Your task to perform on an android device: Search for Mexican restaurants on Maps Image 0: 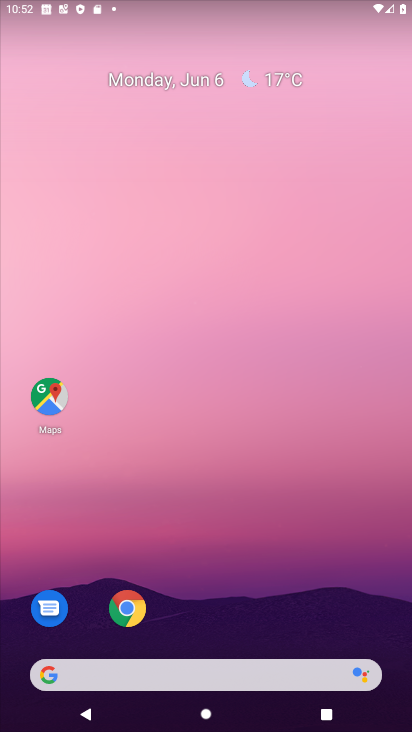
Step 0: click (33, 401)
Your task to perform on an android device: Search for Mexican restaurants on Maps Image 1: 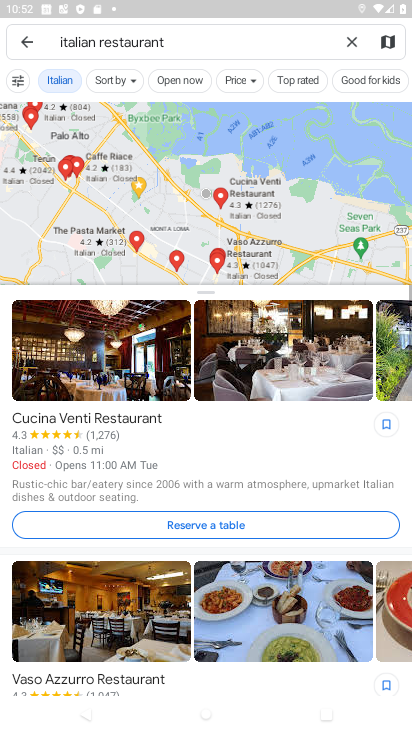
Step 1: click (346, 42)
Your task to perform on an android device: Search for Mexican restaurants on Maps Image 2: 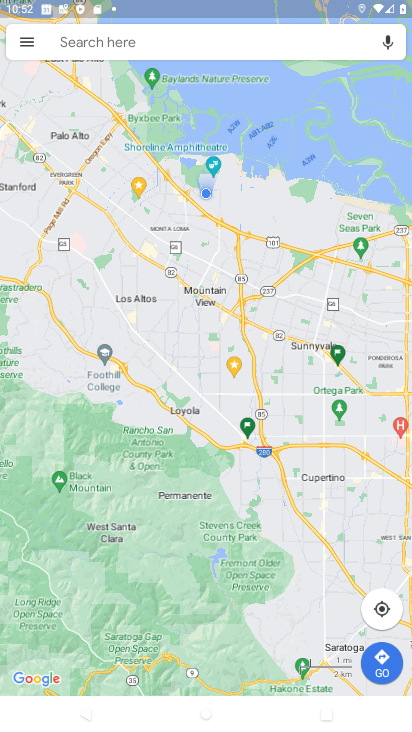
Step 2: click (190, 43)
Your task to perform on an android device: Search for Mexican restaurants on Maps Image 3: 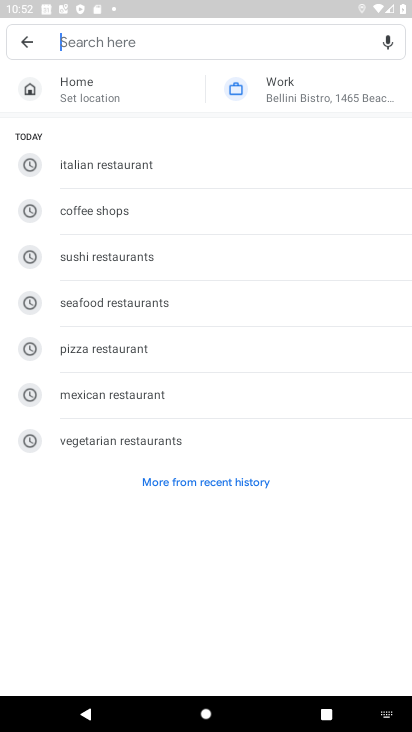
Step 3: click (134, 403)
Your task to perform on an android device: Search for Mexican restaurants on Maps Image 4: 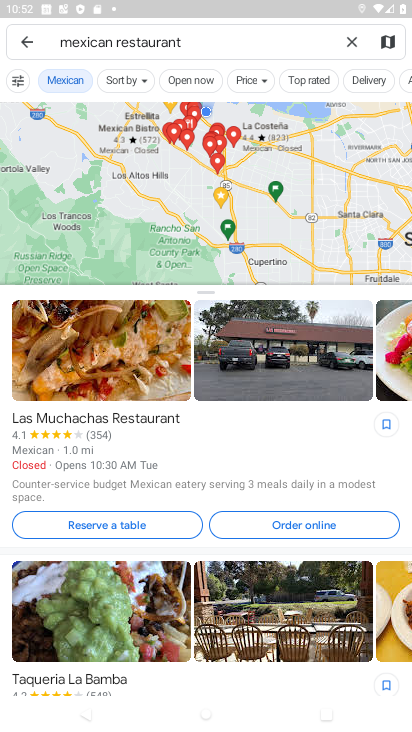
Step 4: task complete